Your task to perform on an android device: Open network settings Image 0: 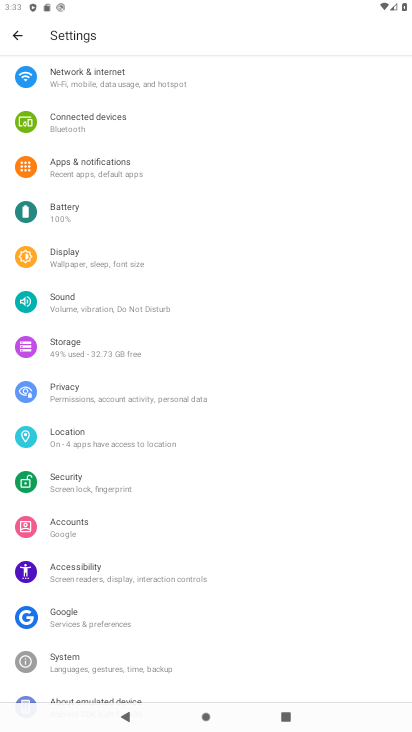
Step 0: click (124, 80)
Your task to perform on an android device: Open network settings Image 1: 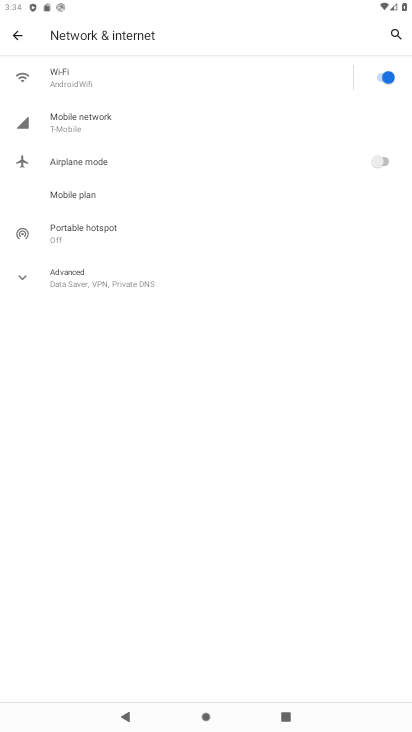
Step 1: click (113, 124)
Your task to perform on an android device: Open network settings Image 2: 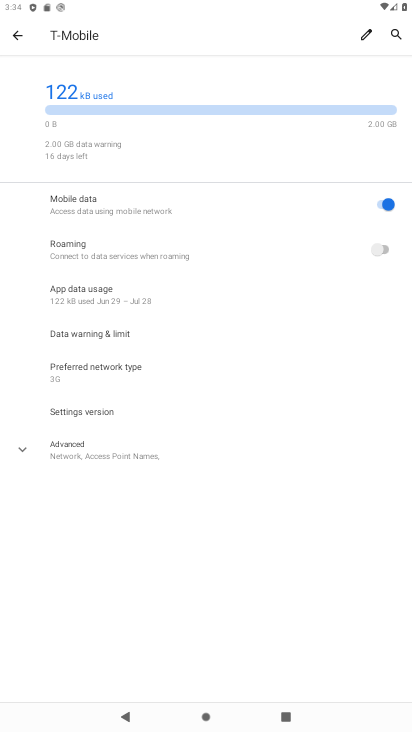
Step 2: task complete